Your task to perform on an android device: stop showing notifications on the lock screen Image 0: 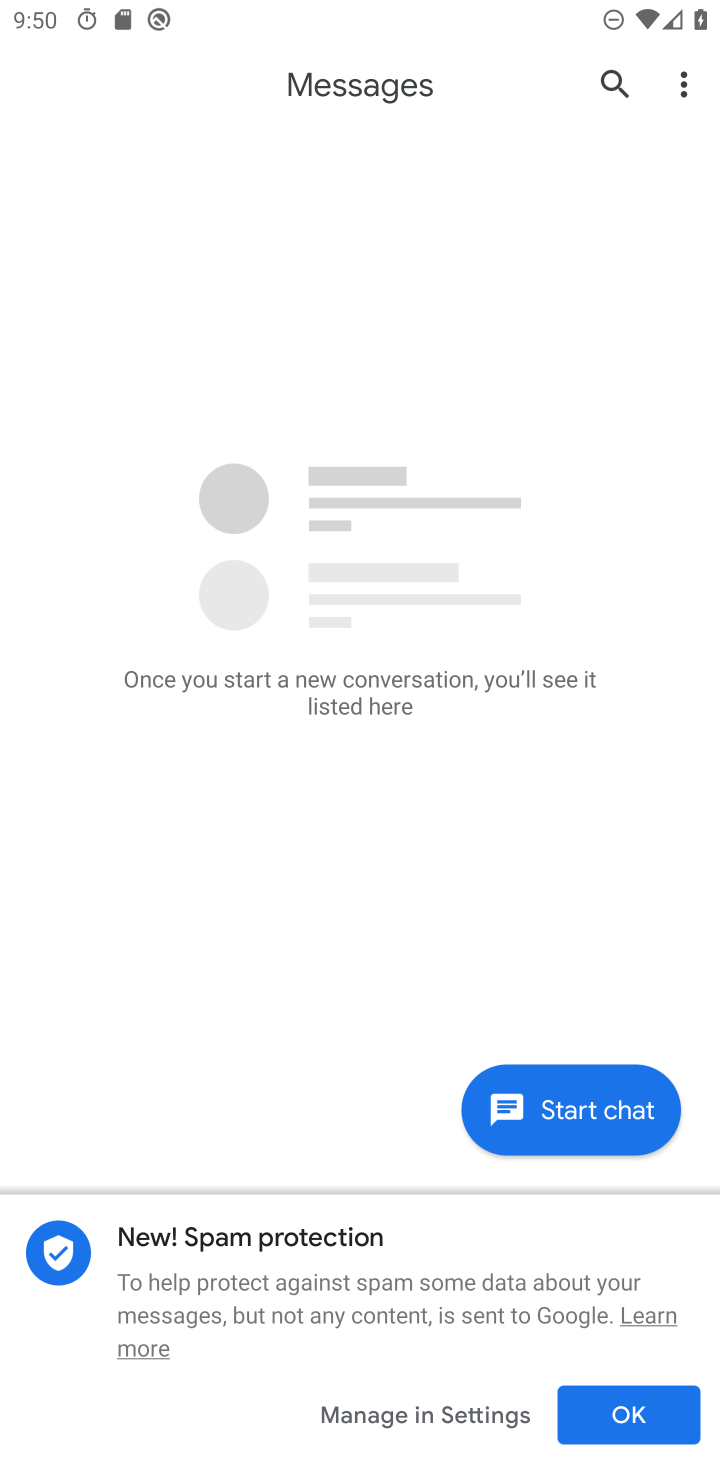
Step 0: press home button
Your task to perform on an android device: stop showing notifications on the lock screen Image 1: 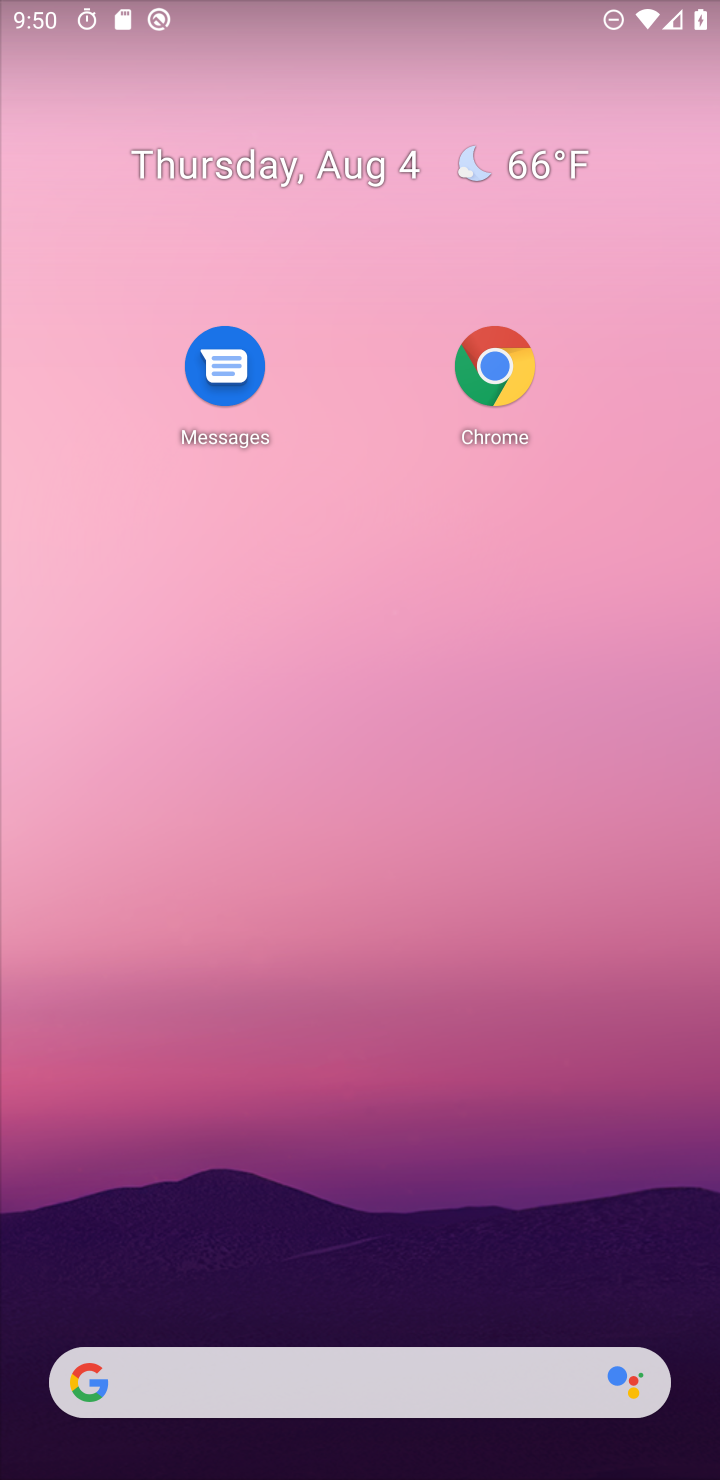
Step 1: drag from (417, 1391) to (460, 183)
Your task to perform on an android device: stop showing notifications on the lock screen Image 2: 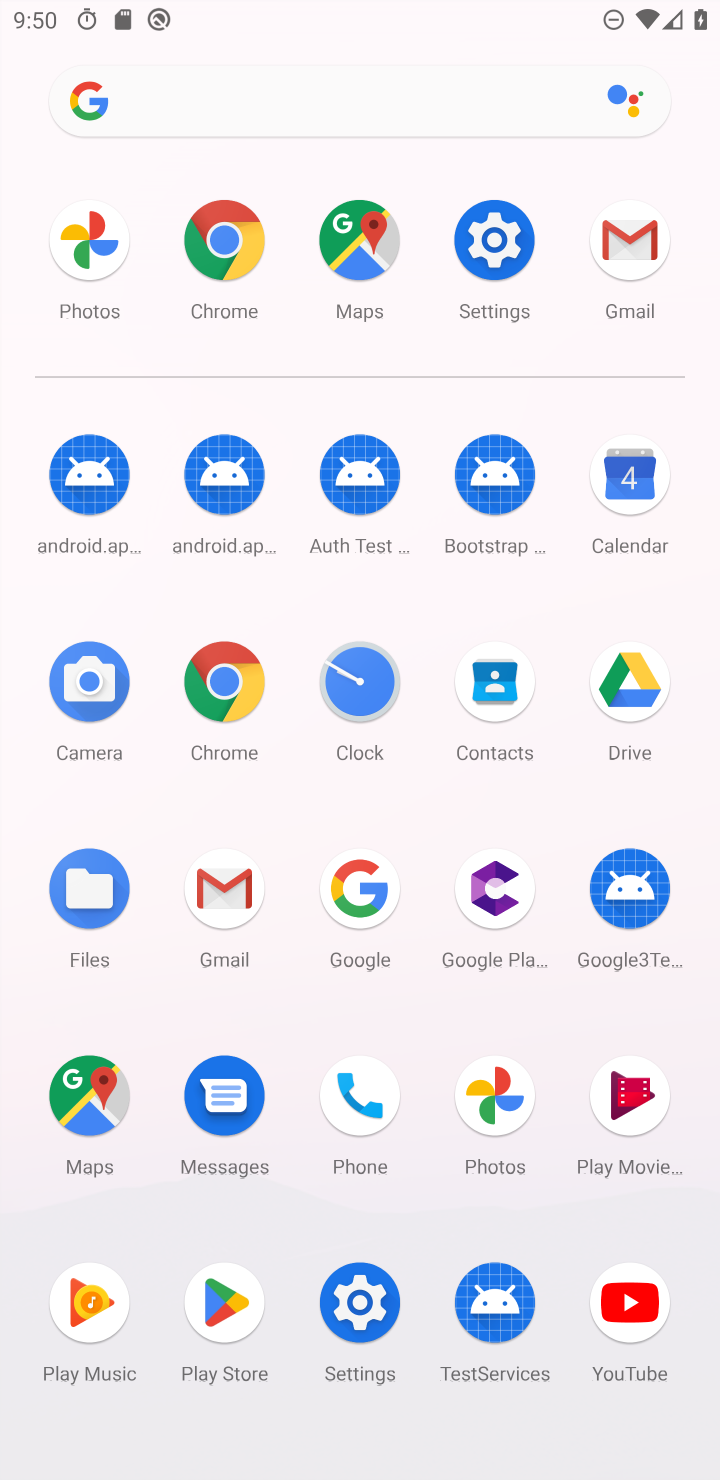
Step 2: click (508, 242)
Your task to perform on an android device: stop showing notifications on the lock screen Image 3: 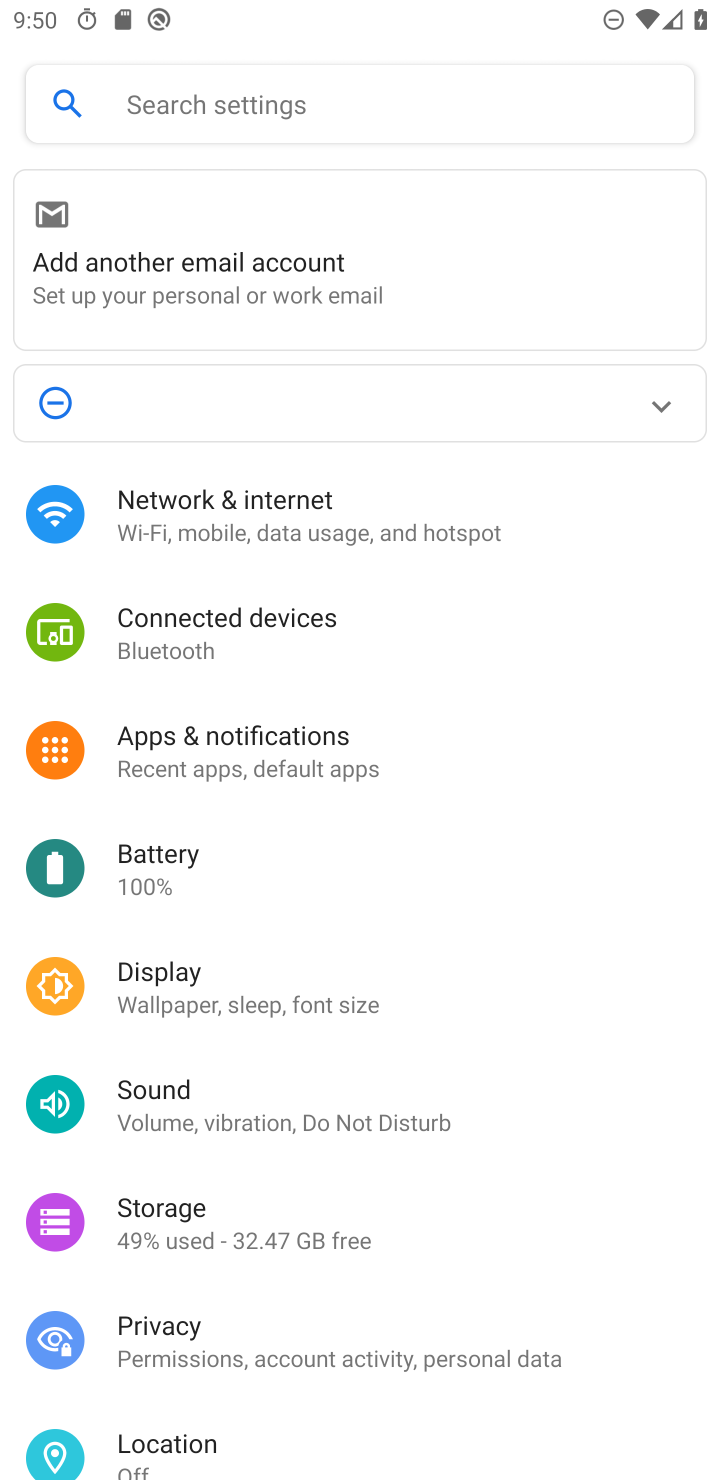
Step 3: click (214, 125)
Your task to perform on an android device: stop showing notifications on the lock screen Image 4: 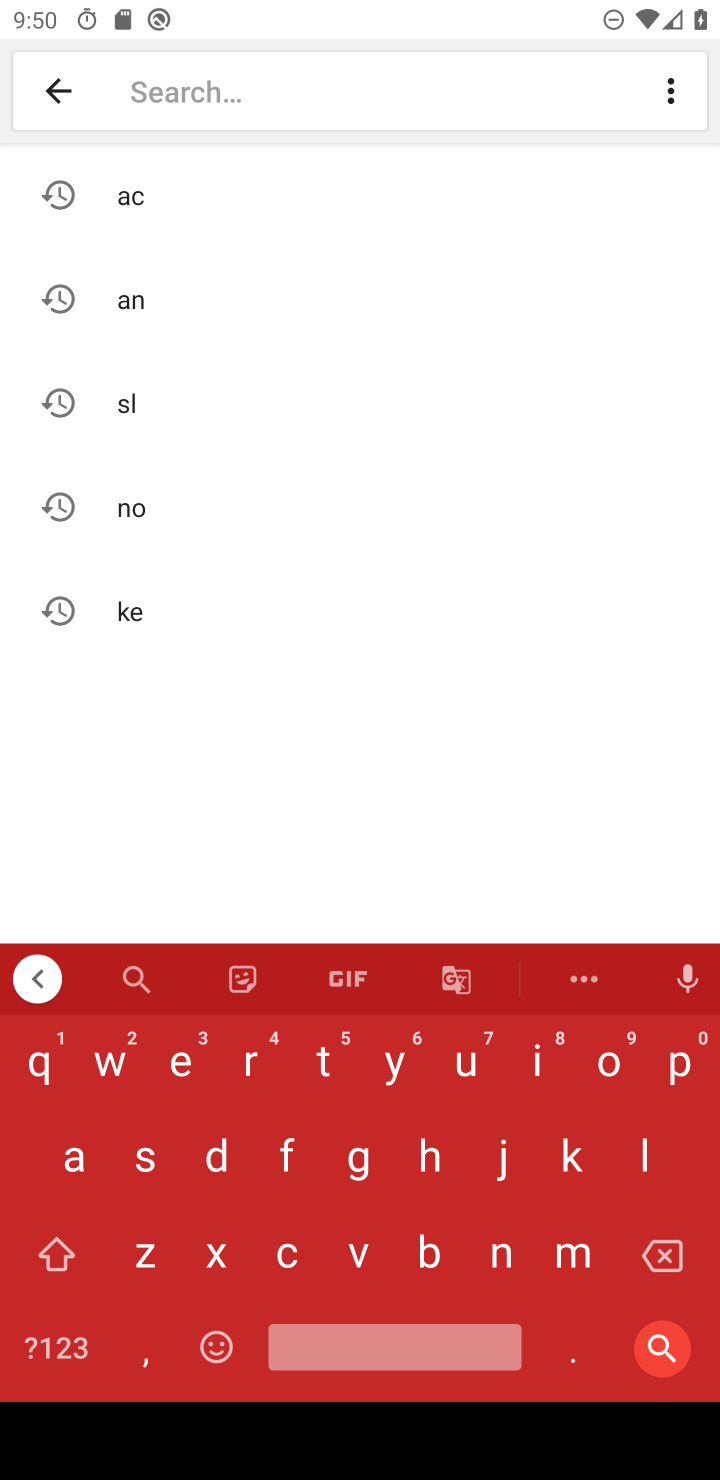
Step 4: click (174, 514)
Your task to perform on an android device: stop showing notifications on the lock screen Image 5: 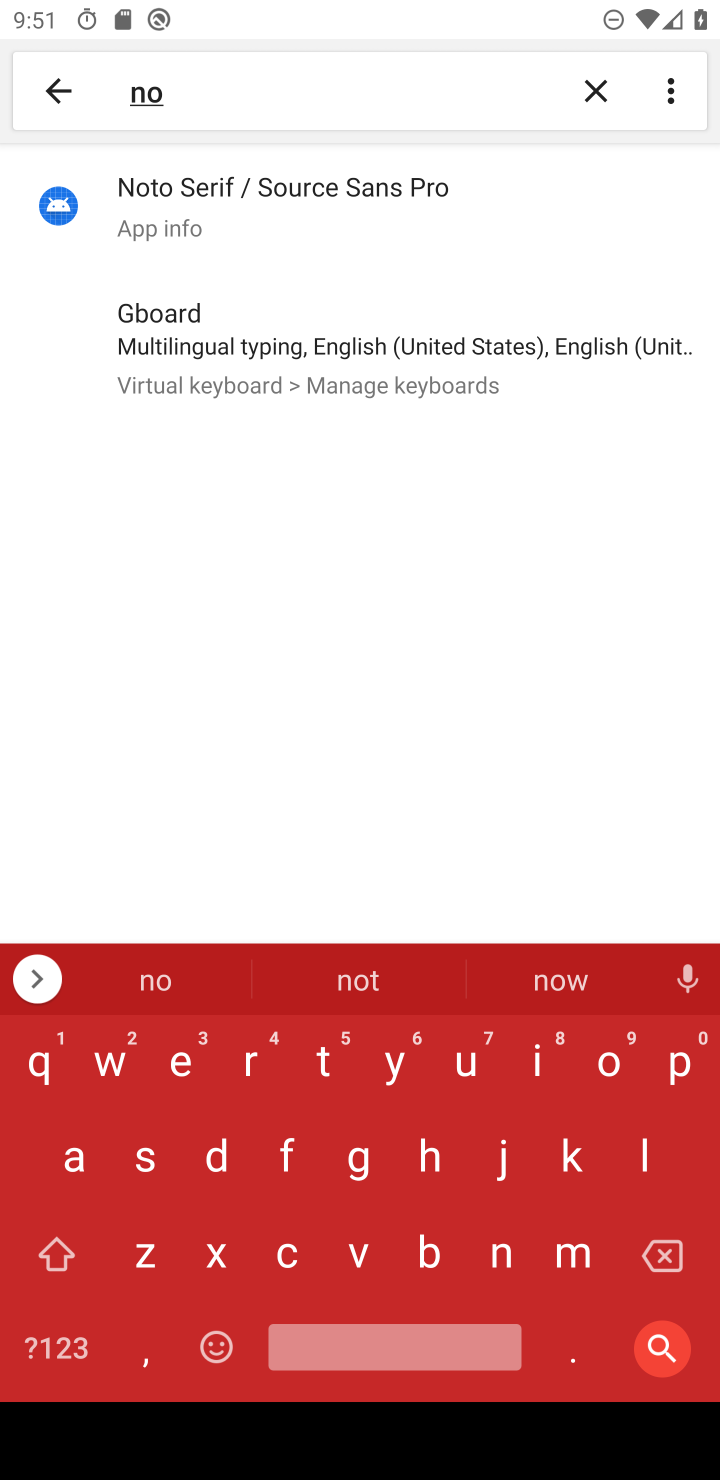
Step 5: click (319, 1070)
Your task to perform on an android device: stop showing notifications on the lock screen Image 6: 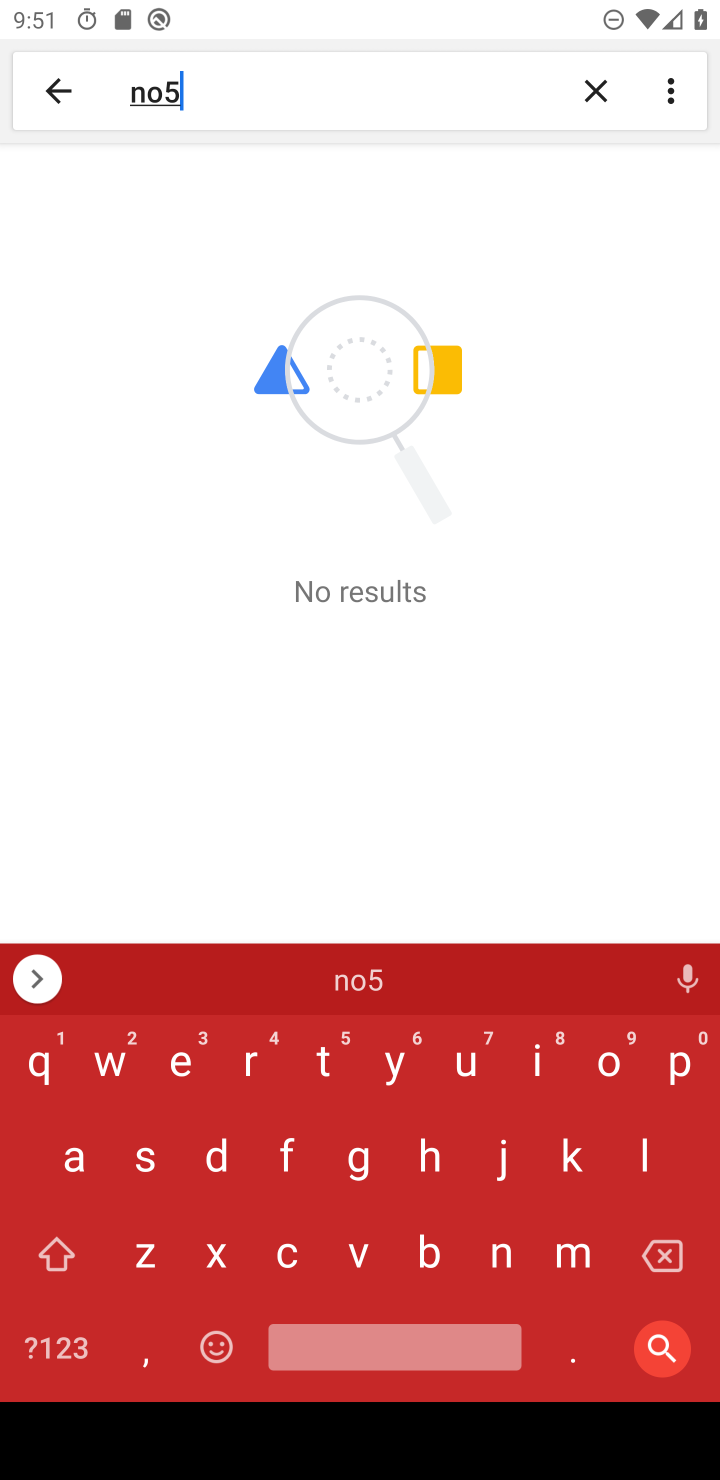
Step 6: click (654, 1276)
Your task to perform on an android device: stop showing notifications on the lock screen Image 7: 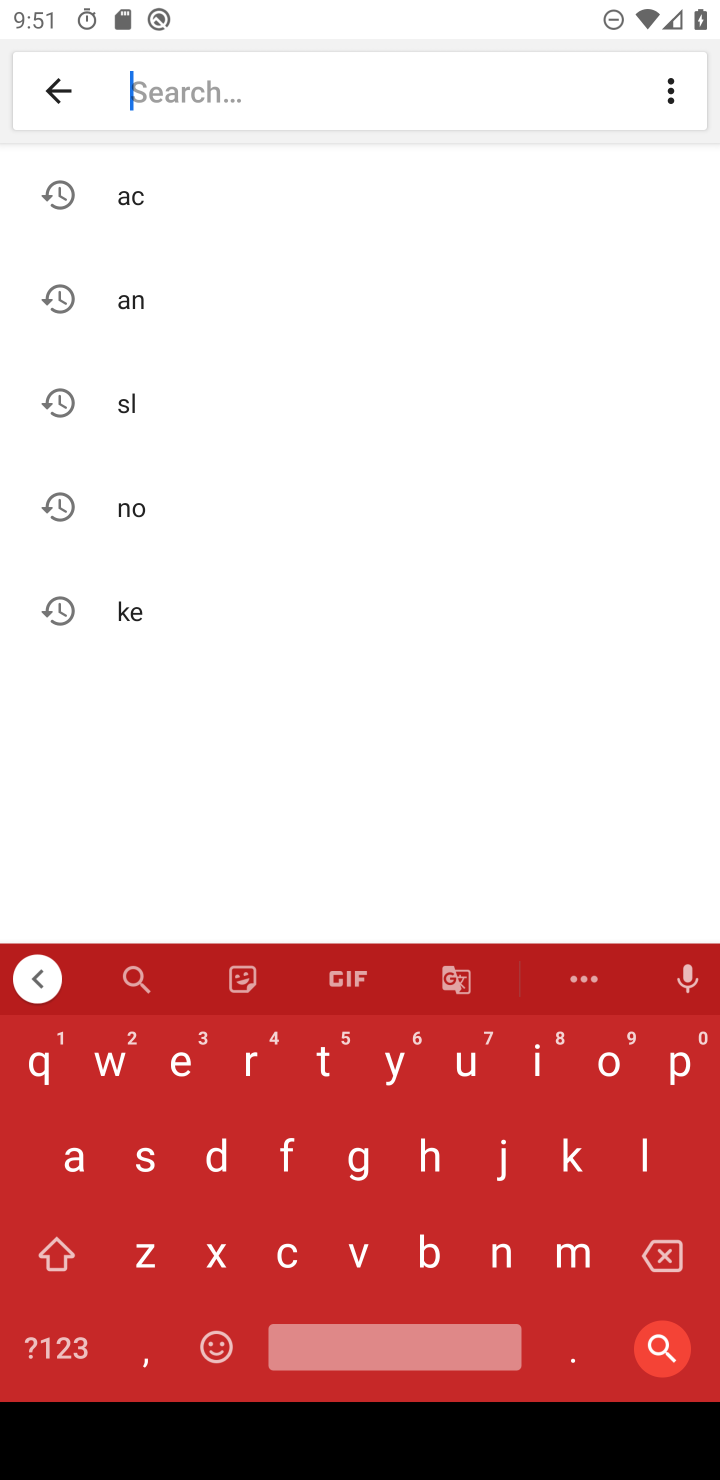
Step 7: click (150, 488)
Your task to perform on an android device: stop showing notifications on the lock screen Image 8: 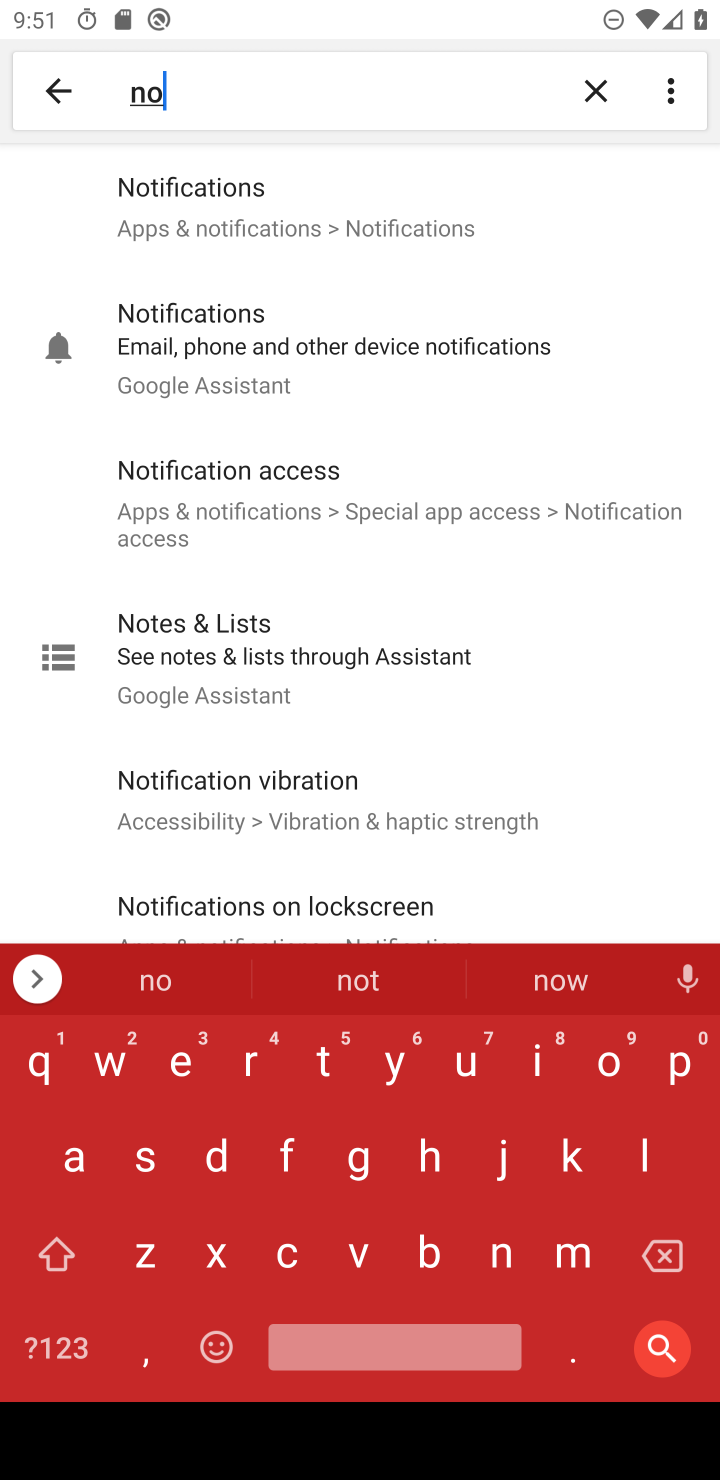
Step 8: click (217, 191)
Your task to perform on an android device: stop showing notifications on the lock screen Image 9: 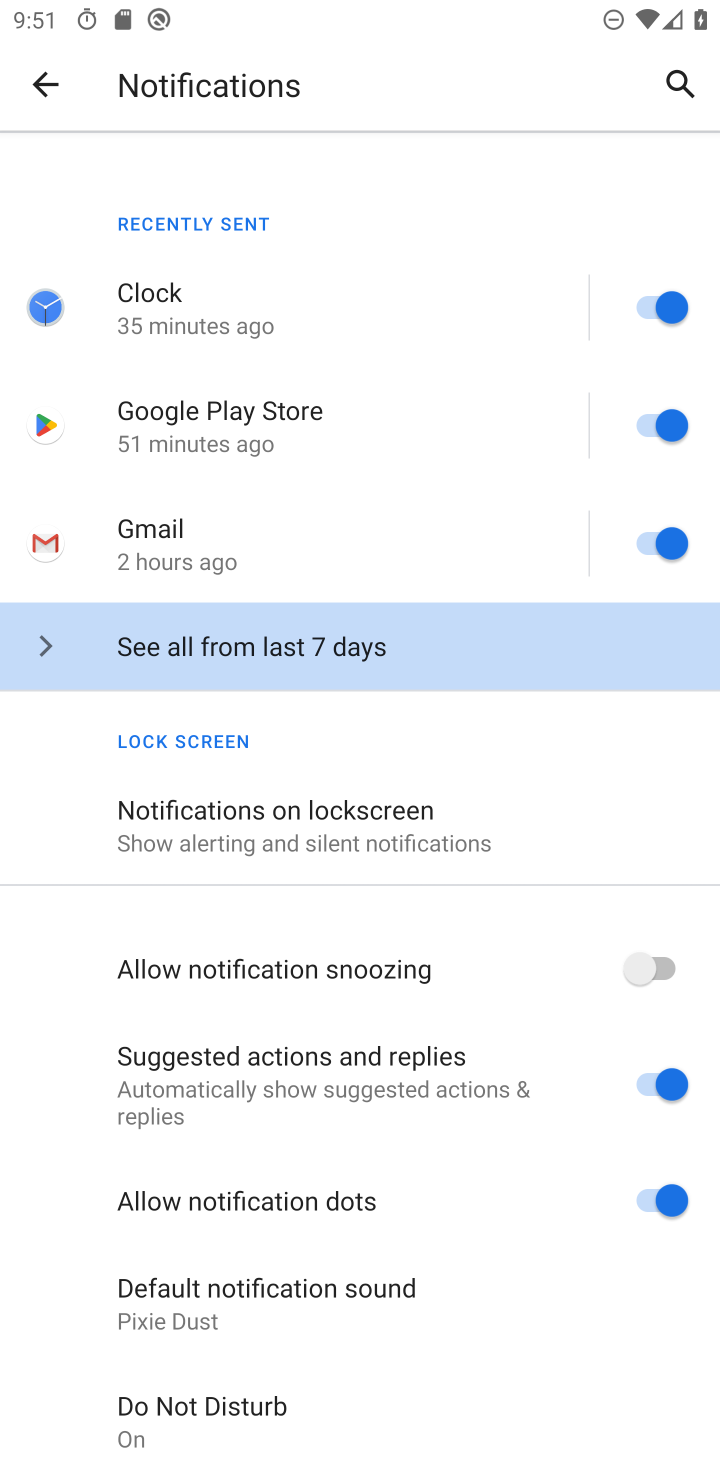
Step 9: click (307, 824)
Your task to perform on an android device: stop showing notifications on the lock screen Image 10: 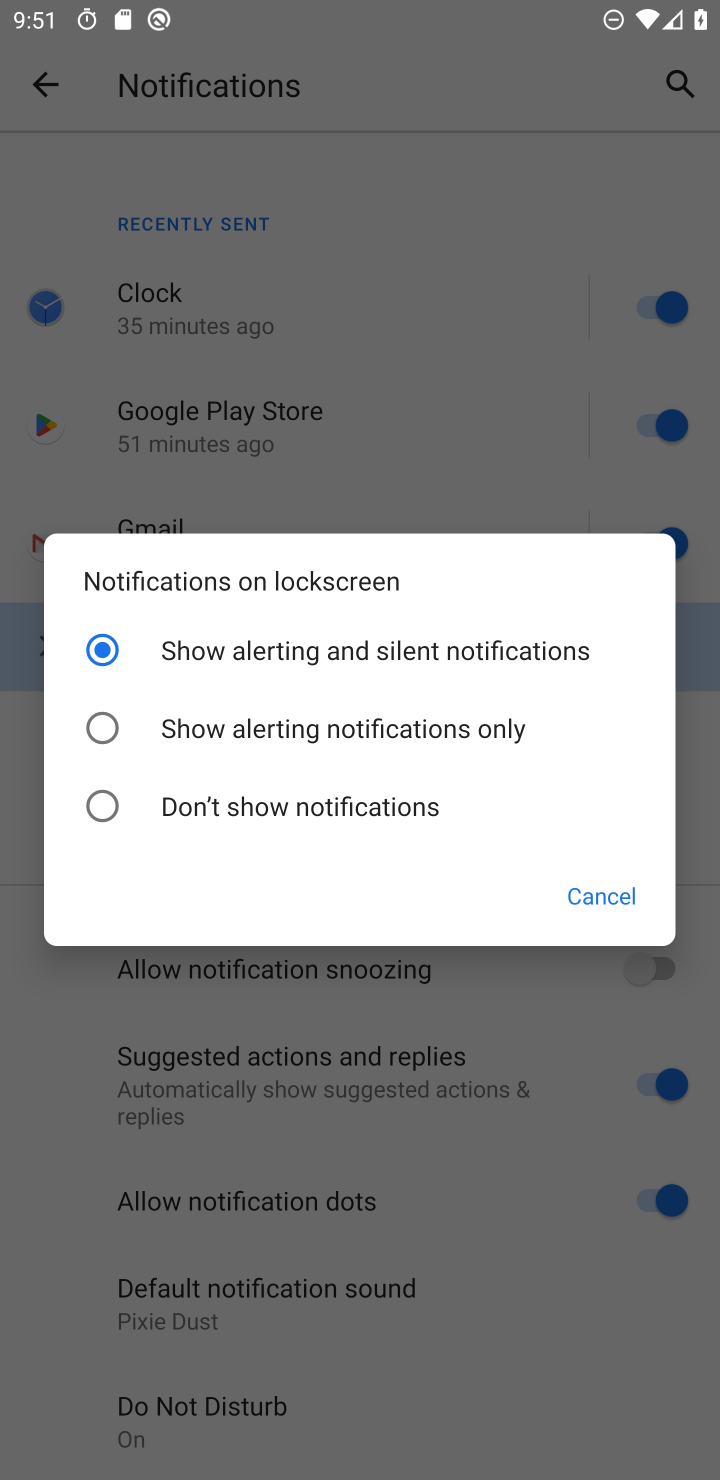
Step 10: click (261, 809)
Your task to perform on an android device: stop showing notifications on the lock screen Image 11: 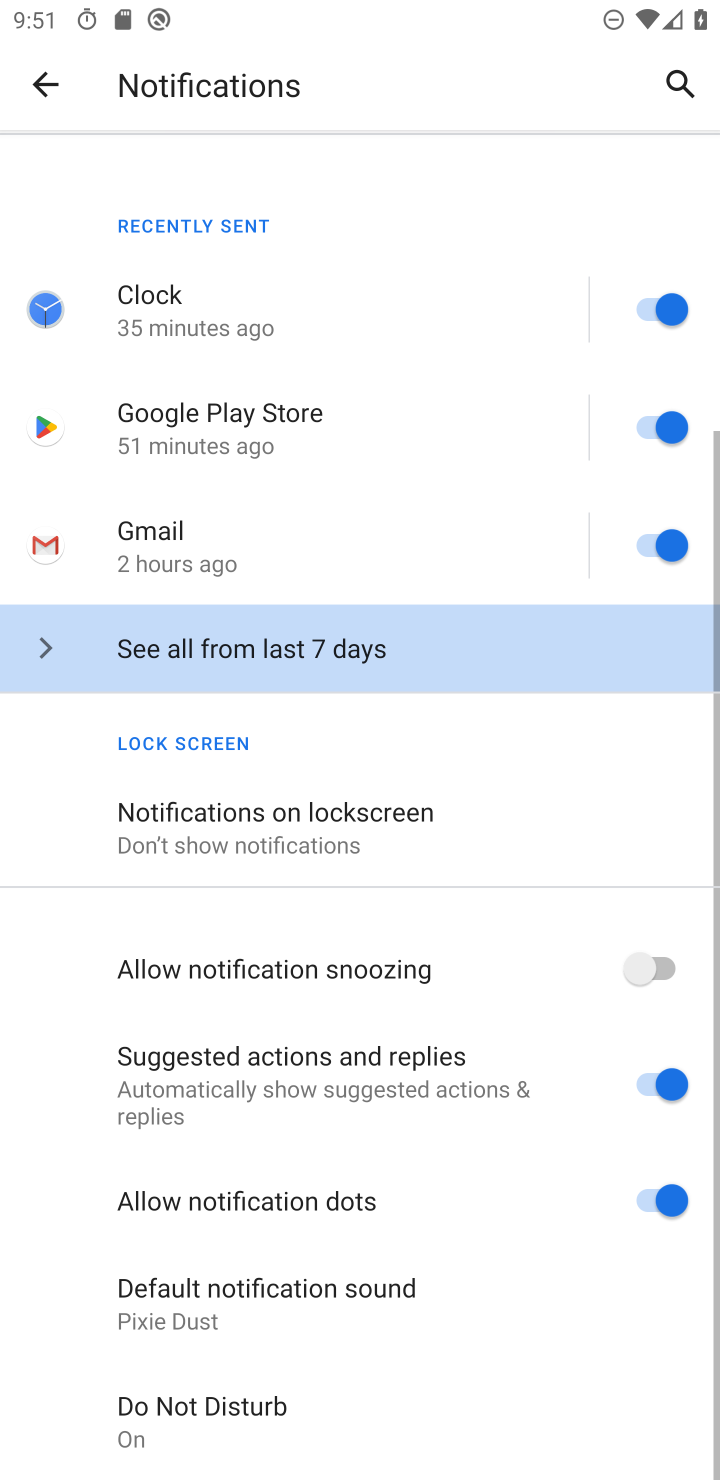
Step 11: click (224, 770)
Your task to perform on an android device: stop showing notifications on the lock screen Image 12: 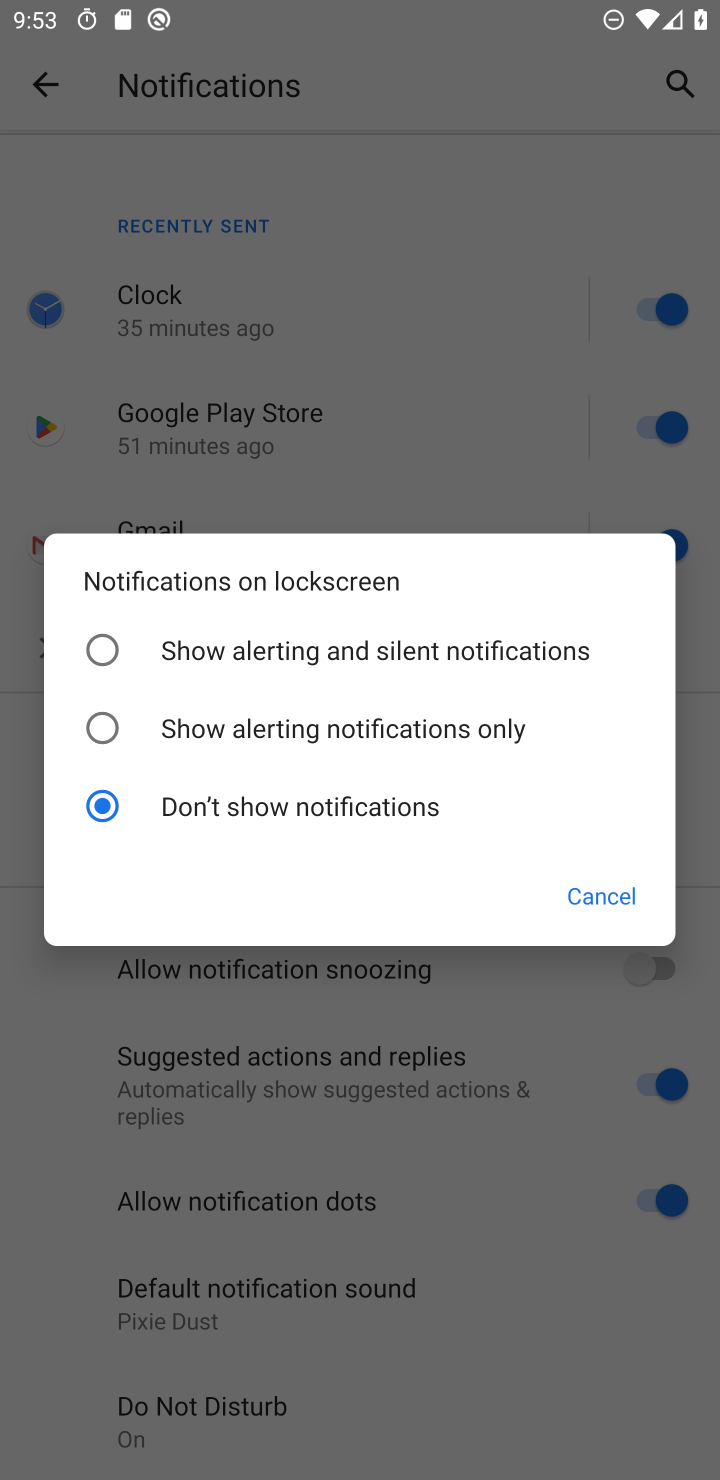
Step 12: task complete